Your task to perform on an android device: turn smart compose on in the gmail app Image 0: 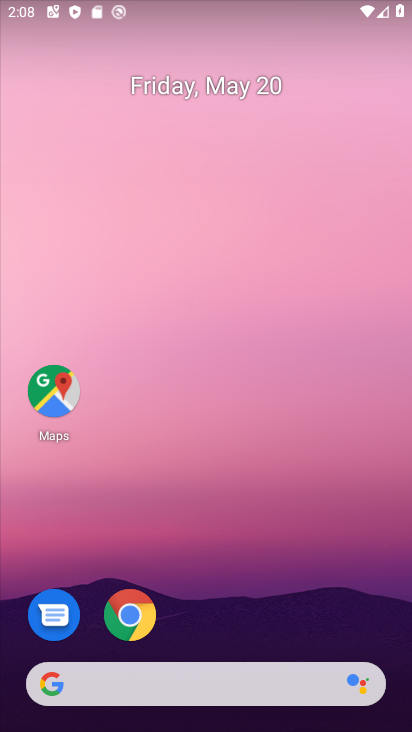
Step 0: drag from (284, 577) to (284, 229)
Your task to perform on an android device: turn smart compose on in the gmail app Image 1: 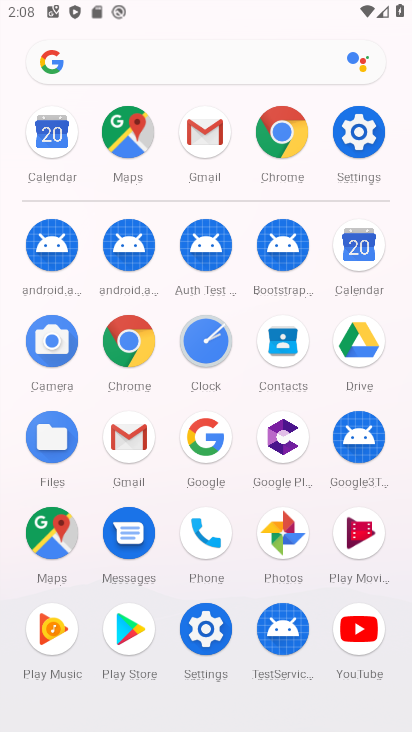
Step 1: click (129, 437)
Your task to perform on an android device: turn smart compose on in the gmail app Image 2: 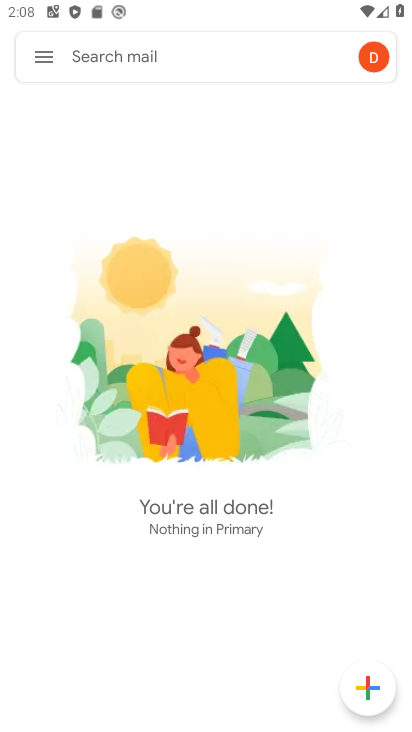
Step 2: click (40, 45)
Your task to perform on an android device: turn smart compose on in the gmail app Image 3: 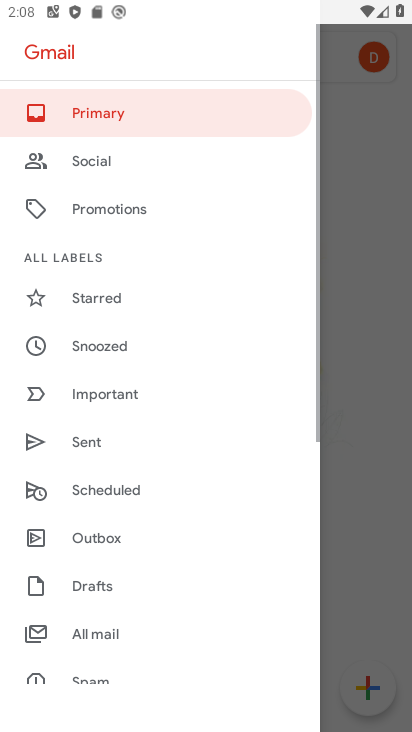
Step 3: drag from (132, 586) to (198, 232)
Your task to perform on an android device: turn smart compose on in the gmail app Image 4: 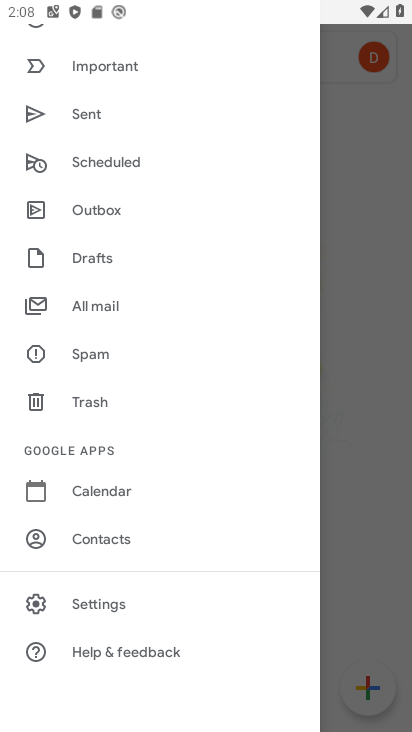
Step 4: click (117, 605)
Your task to perform on an android device: turn smart compose on in the gmail app Image 5: 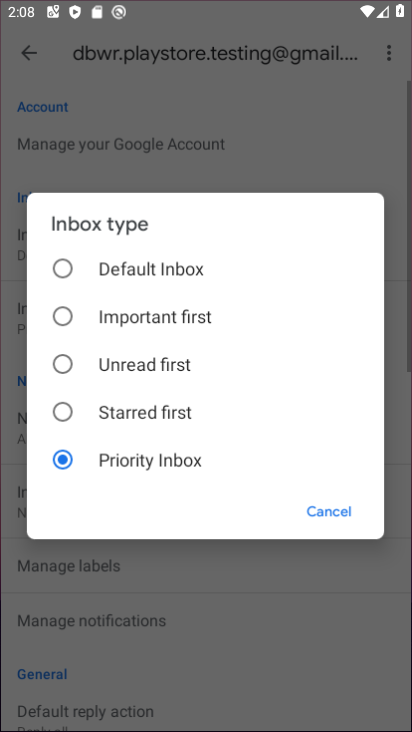
Step 5: drag from (173, 574) to (190, 466)
Your task to perform on an android device: turn smart compose on in the gmail app Image 6: 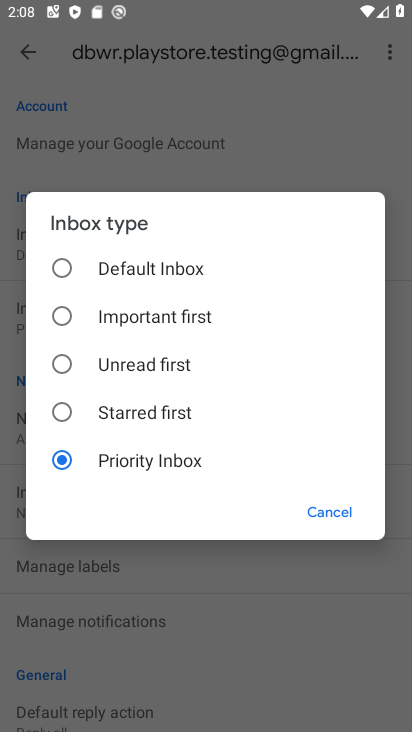
Step 6: click (319, 508)
Your task to perform on an android device: turn smart compose on in the gmail app Image 7: 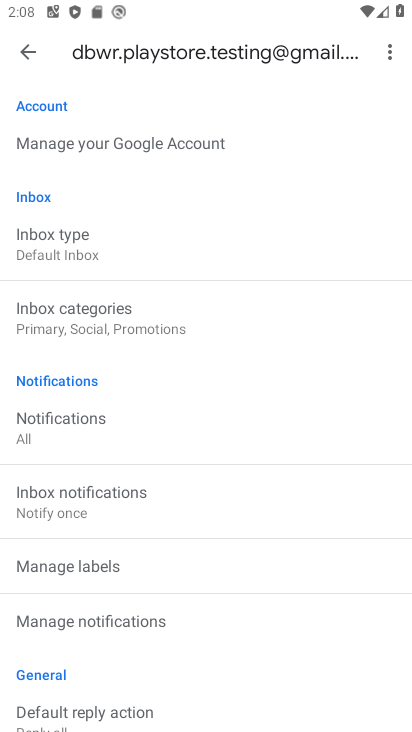
Step 7: task complete